Your task to perform on an android device: Open Google Maps Image 0: 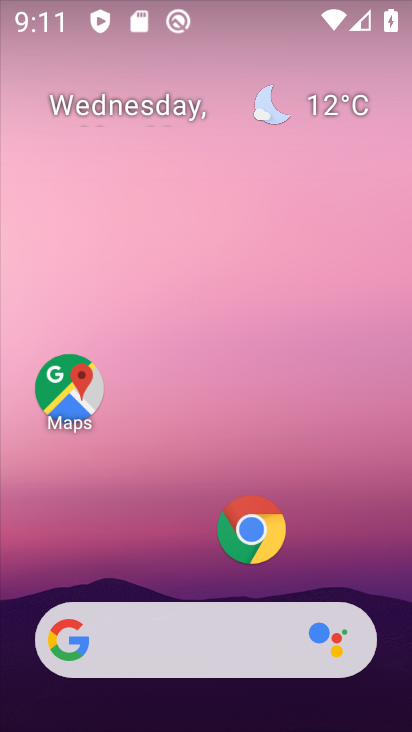
Step 0: click (78, 400)
Your task to perform on an android device: Open Google Maps Image 1: 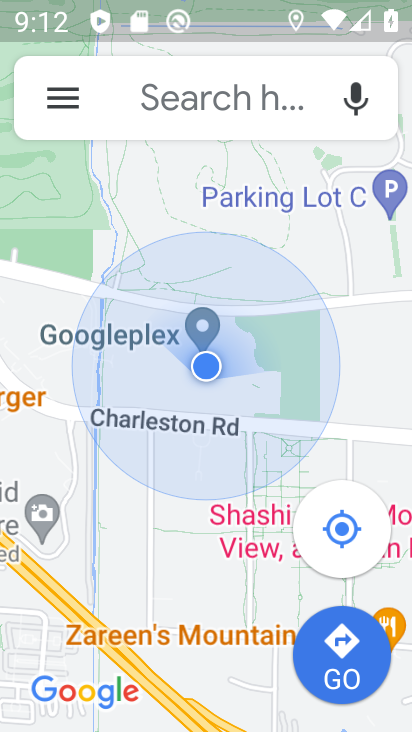
Step 1: task complete